Your task to perform on an android device: toggle location history Image 0: 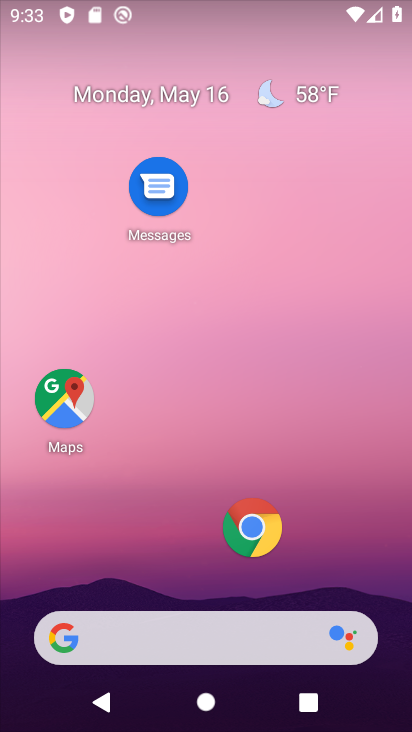
Step 0: drag from (201, 550) to (185, 39)
Your task to perform on an android device: toggle location history Image 1: 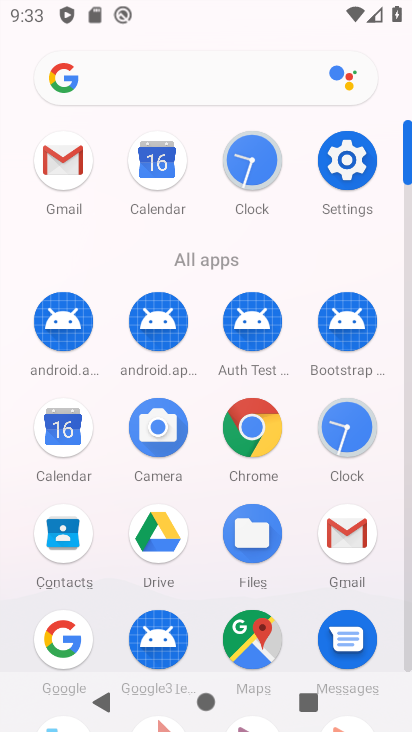
Step 1: click (349, 161)
Your task to perform on an android device: toggle location history Image 2: 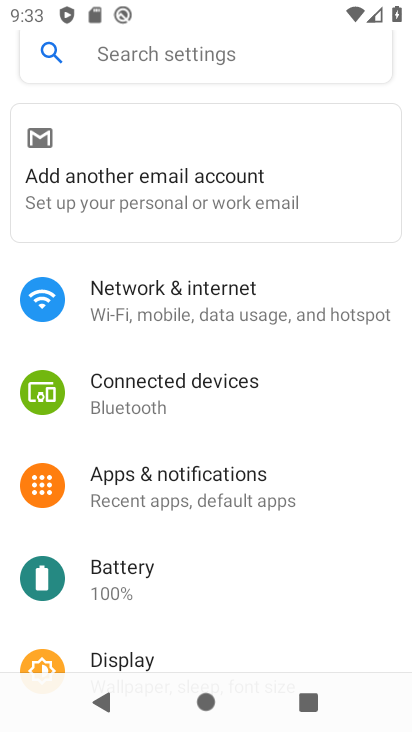
Step 2: drag from (235, 554) to (228, 133)
Your task to perform on an android device: toggle location history Image 3: 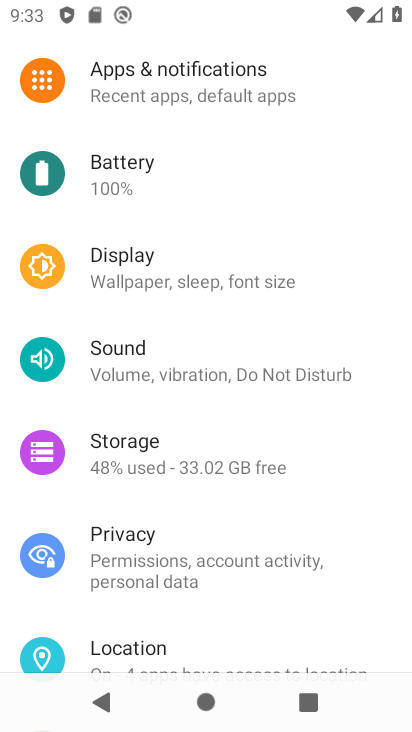
Step 3: drag from (219, 622) to (257, 305)
Your task to perform on an android device: toggle location history Image 4: 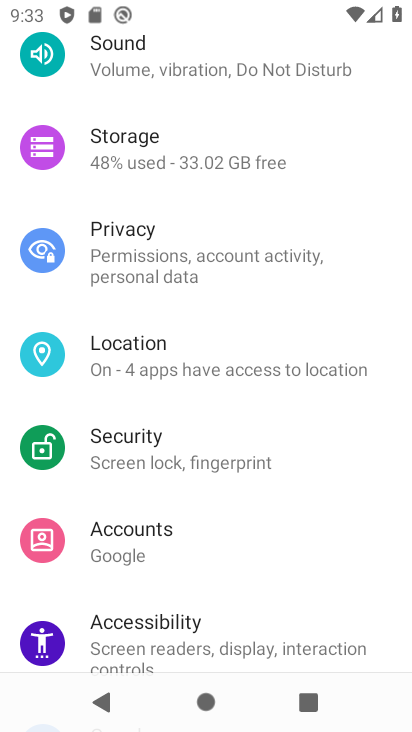
Step 4: click (146, 353)
Your task to perform on an android device: toggle location history Image 5: 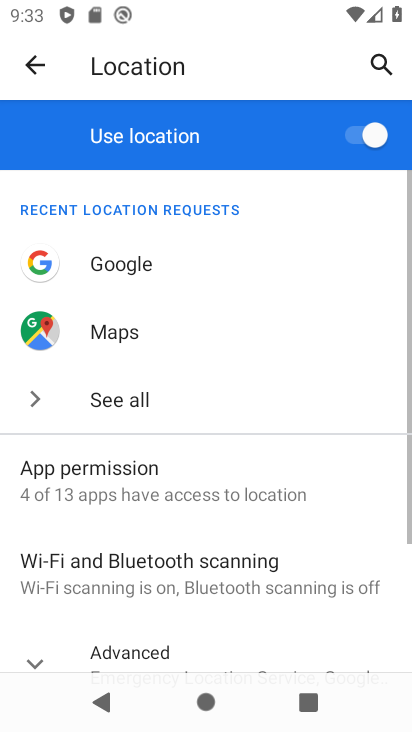
Step 5: drag from (144, 643) to (170, 315)
Your task to perform on an android device: toggle location history Image 6: 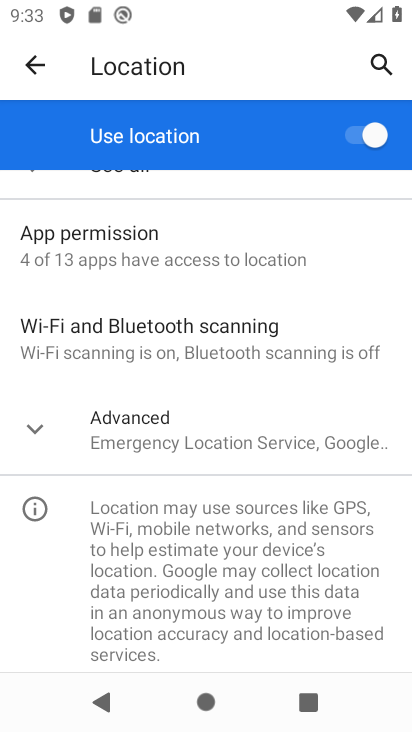
Step 6: click (121, 415)
Your task to perform on an android device: toggle location history Image 7: 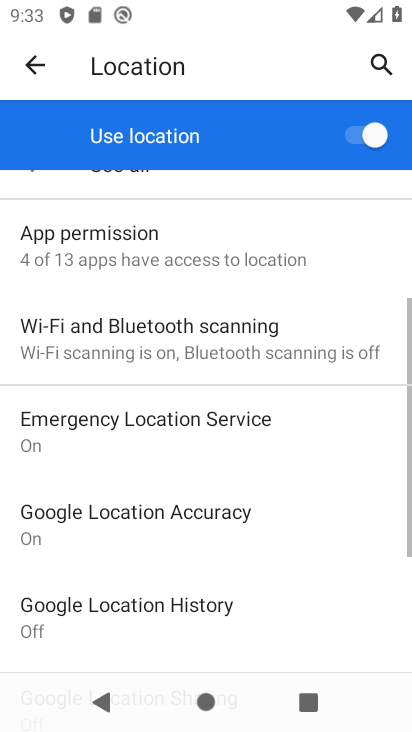
Step 7: drag from (243, 524) to (234, 272)
Your task to perform on an android device: toggle location history Image 8: 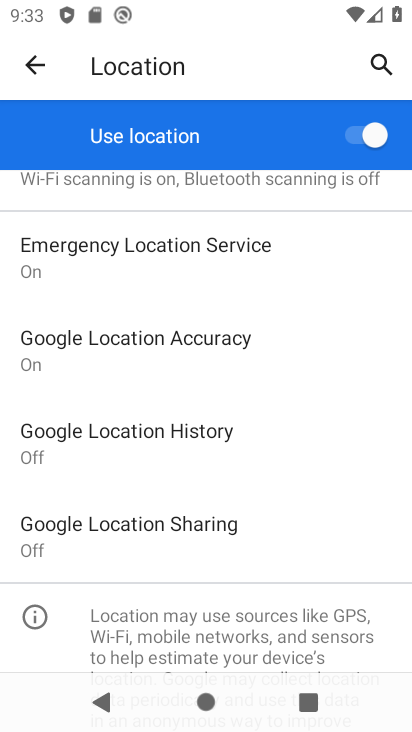
Step 8: click (171, 431)
Your task to perform on an android device: toggle location history Image 9: 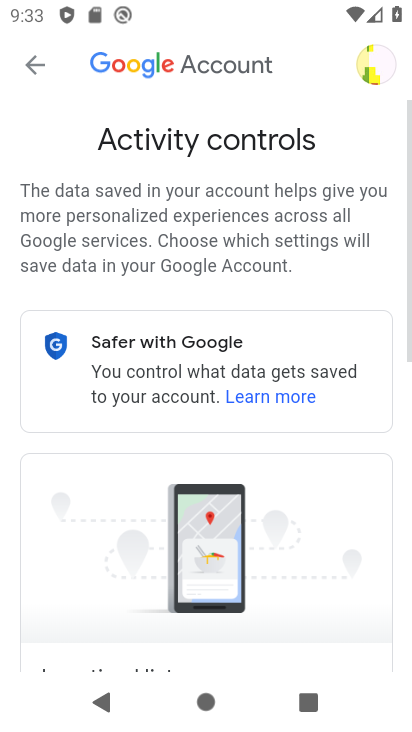
Step 9: drag from (294, 500) to (274, 104)
Your task to perform on an android device: toggle location history Image 10: 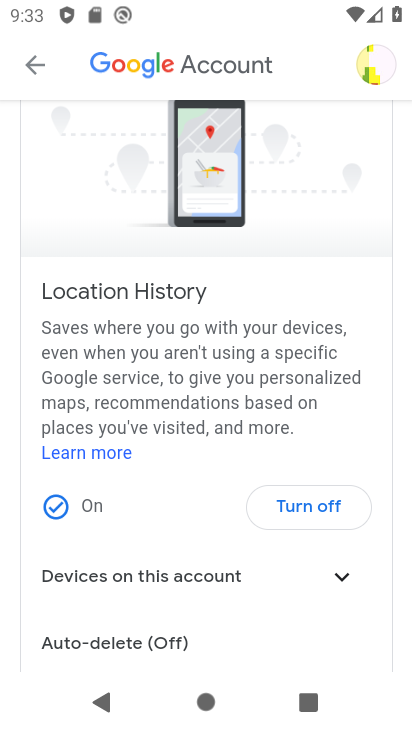
Step 10: click (311, 509)
Your task to perform on an android device: toggle location history Image 11: 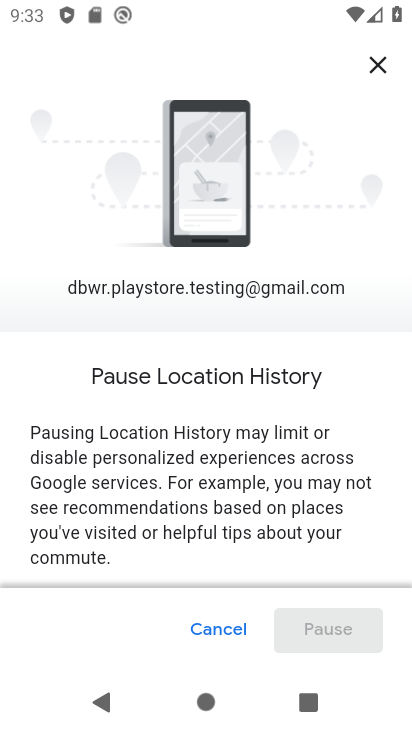
Step 11: drag from (316, 517) to (285, 49)
Your task to perform on an android device: toggle location history Image 12: 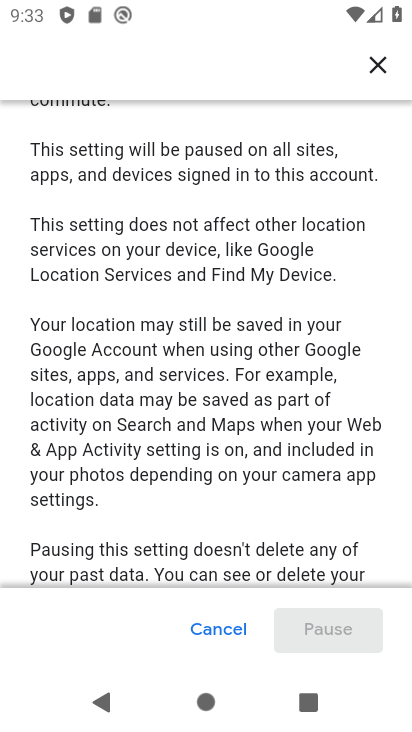
Step 12: drag from (295, 531) to (286, 12)
Your task to perform on an android device: toggle location history Image 13: 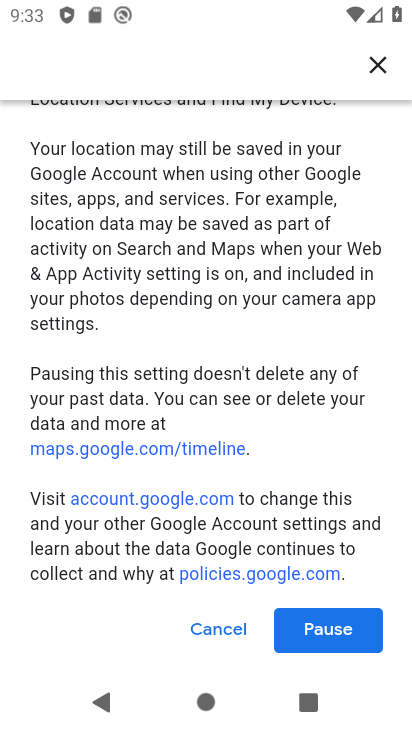
Step 13: click (320, 627)
Your task to perform on an android device: toggle location history Image 14: 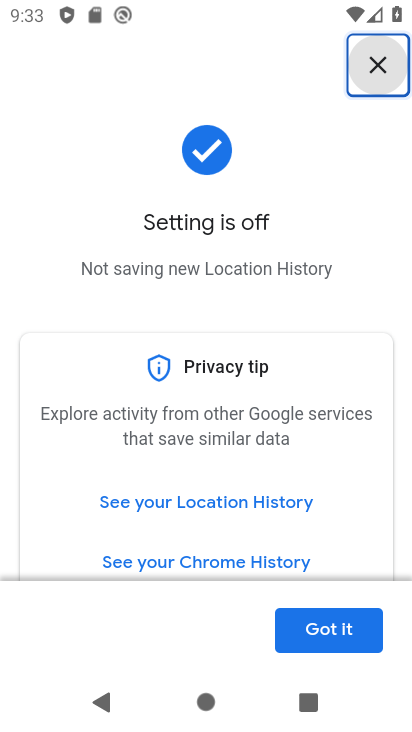
Step 14: click (325, 629)
Your task to perform on an android device: toggle location history Image 15: 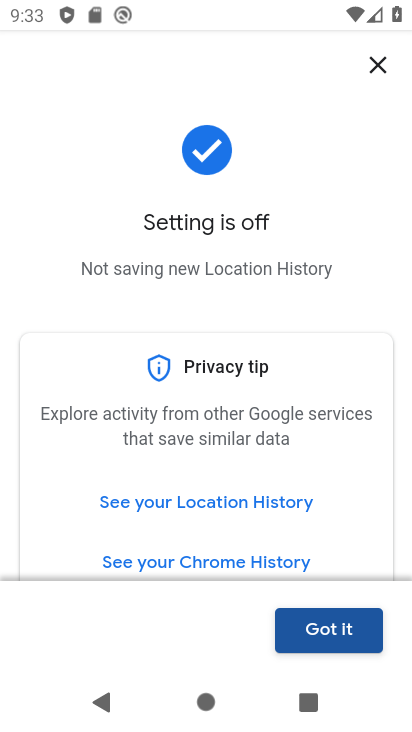
Step 15: task complete